Your task to perform on an android device: Open calendar and show me the second week of next month Image 0: 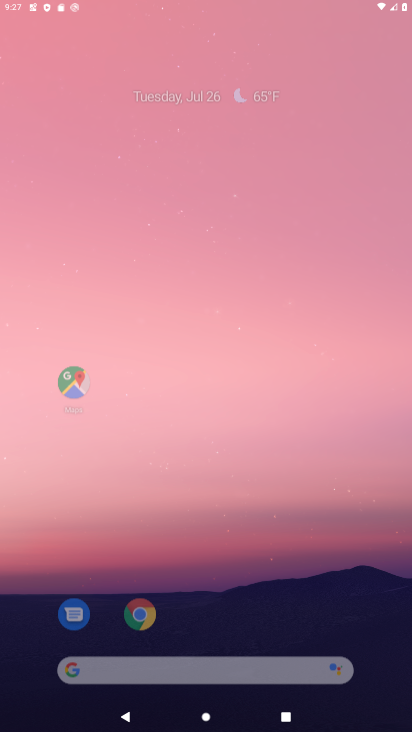
Step 0: press home button
Your task to perform on an android device: Open calendar and show me the second week of next month Image 1: 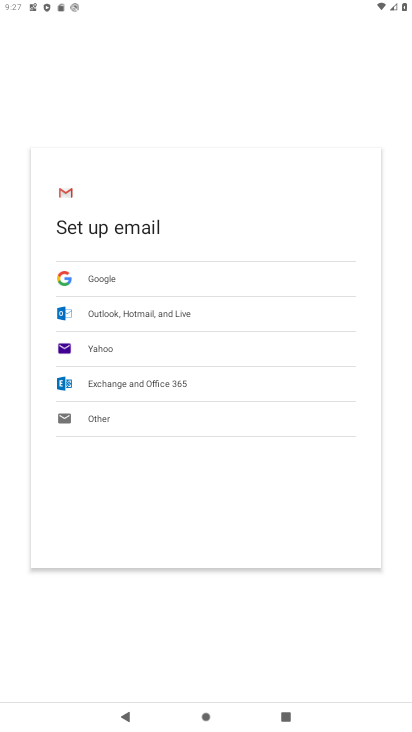
Step 1: click (205, 14)
Your task to perform on an android device: Open calendar and show me the second week of next month Image 2: 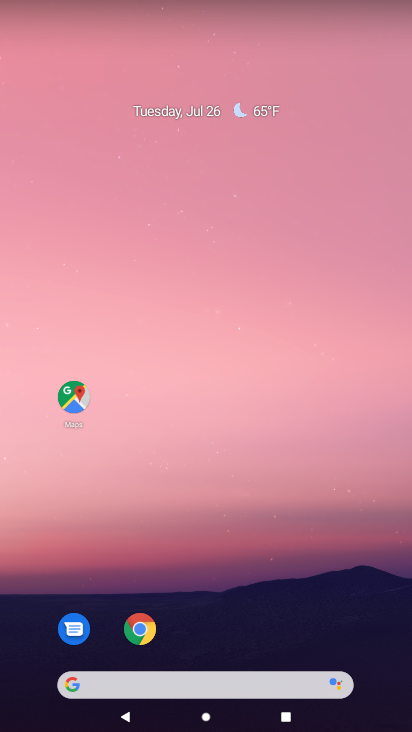
Step 2: drag from (319, 551) to (237, 36)
Your task to perform on an android device: Open calendar and show me the second week of next month Image 3: 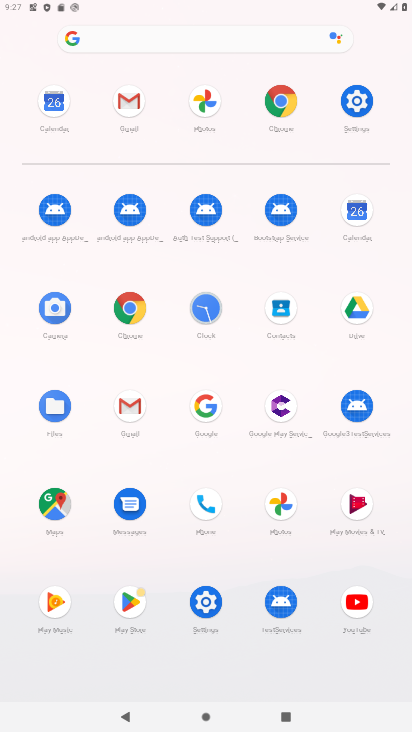
Step 3: click (353, 216)
Your task to perform on an android device: Open calendar and show me the second week of next month Image 4: 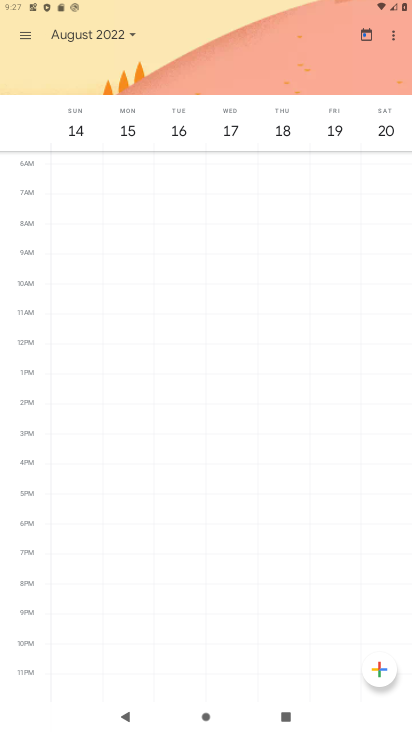
Step 4: click (90, 37)
Your task to perform on an android device: Open calendar and show me the second week of next month Image 5: 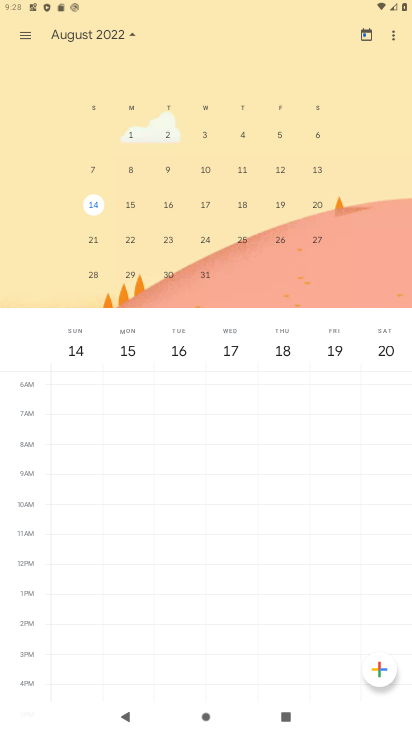
Step 5: click (164, 166)
Your task to perform on an android device: Open calendar and show me the second week of next month Image 6: 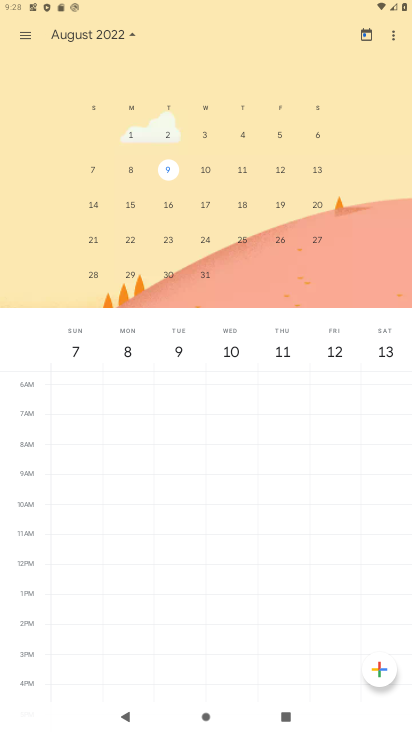
Step 6: task complete